Your task to perform on an android device: check google app version Image 0: 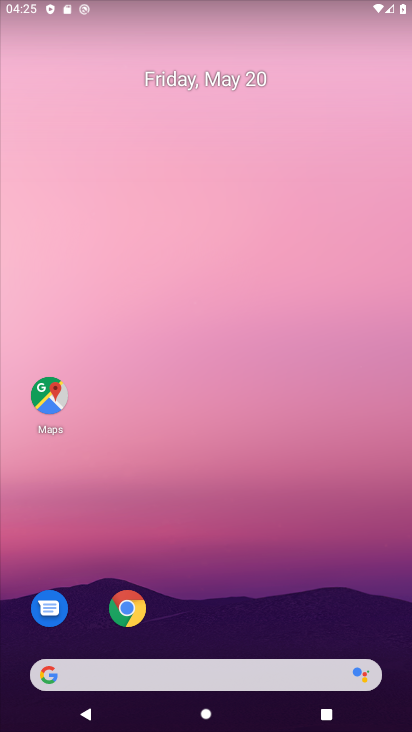
Step 0: drag from (191, 660) to (154, 1)
Your task to perform on an android device: check google app version Image 1: 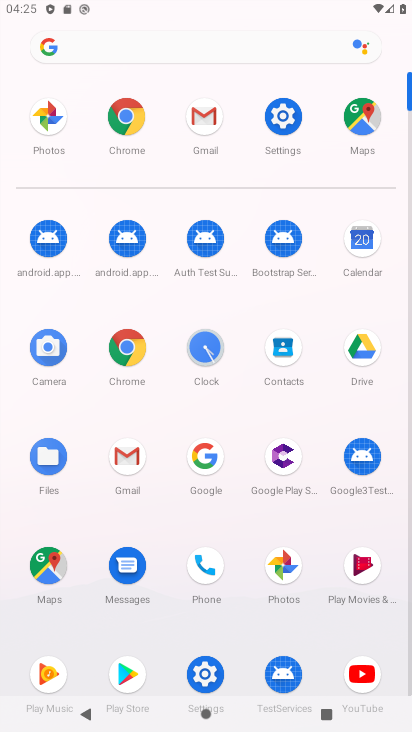
Step 1: click (200, 455)
Your task to perform on an android device: check google app version Image 2: 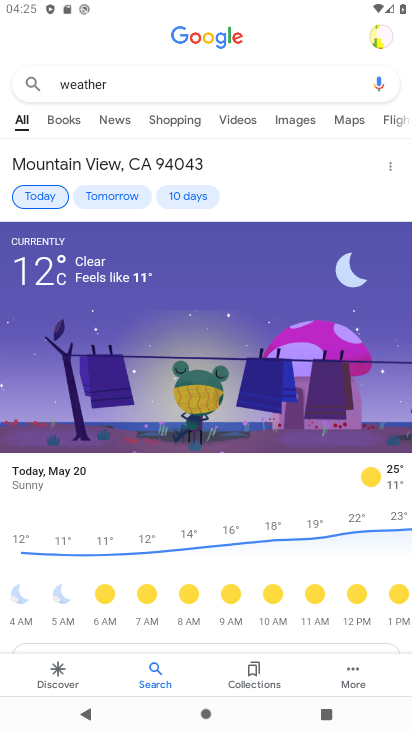
Step 2: press back button
Your task to perform on an android device: check google app version Image 3: 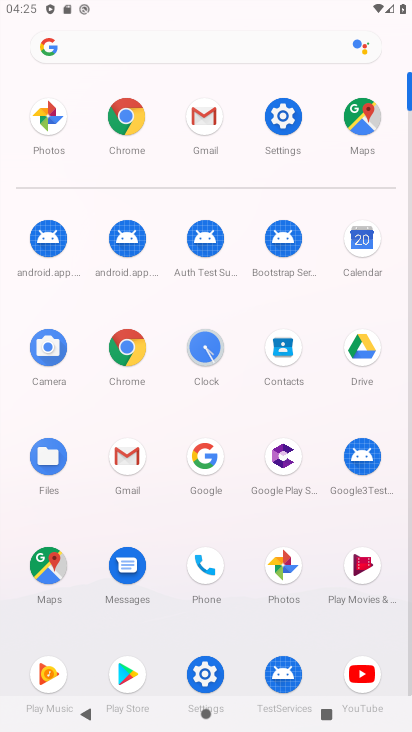
Step 3: drag from (203, 463) to (288, 332)
Your task to perform on an android device: check google app version Image 4: 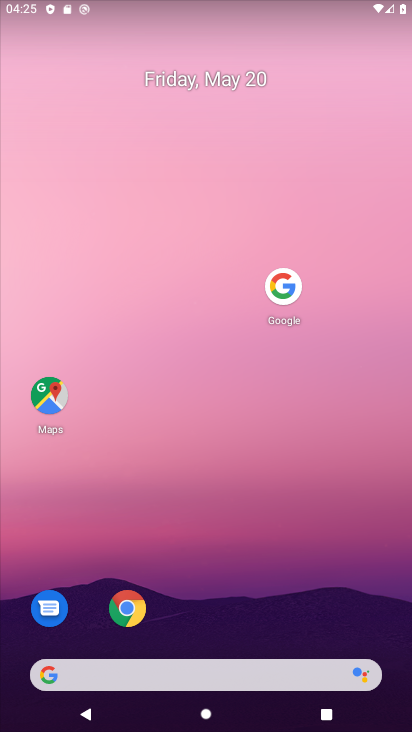
Step 4: click (268, 277)
Your task to perform on an android device: check google app version Image 5: 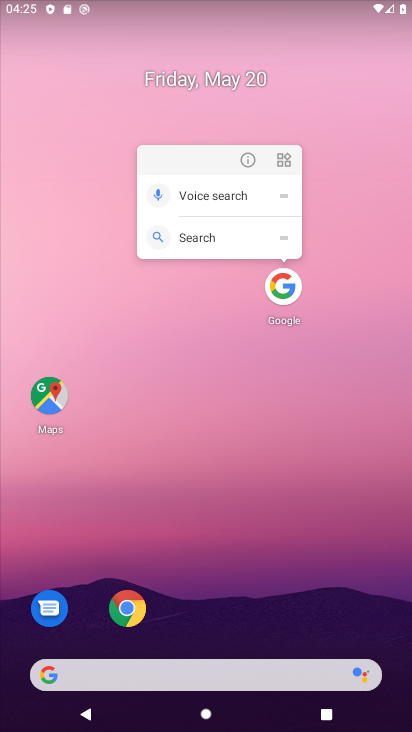
Step 5: click (249, 167)
Your task to perform on an android device: check google app version Image 6: 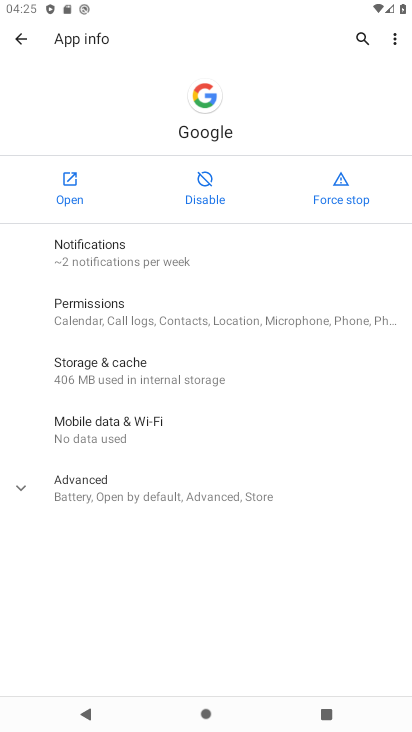
Step 6: drag from (243, 582) to (72, 195)
Your task to perform on an android device: check google app version Image 7: 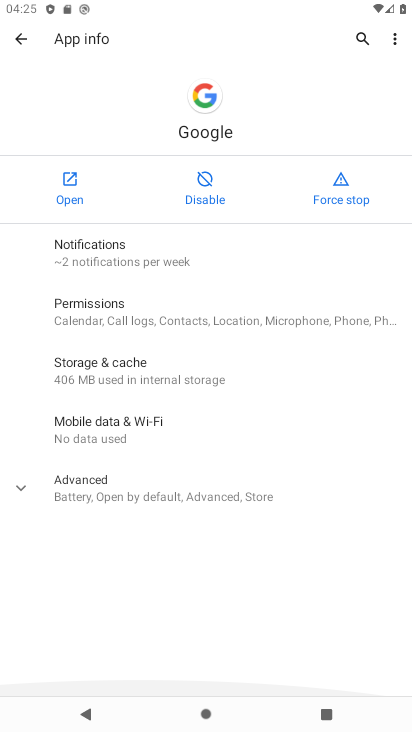
Step 7: click (92, 464)
Your task to perform on an android device: check google app version Image 8: 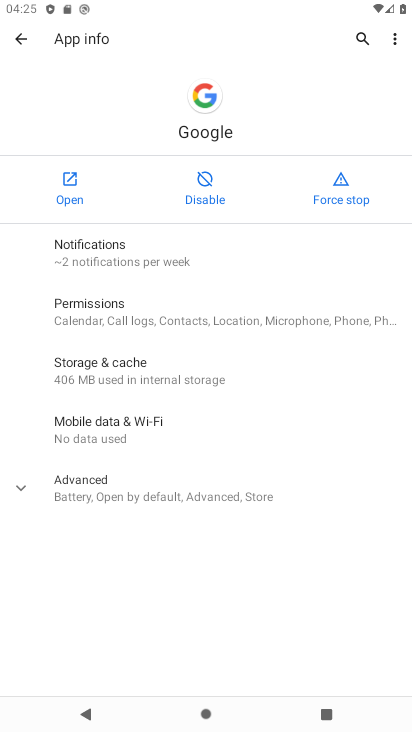
Step 8: click (37, 490)
Your task to perform on an android device: check google app version Image 9: 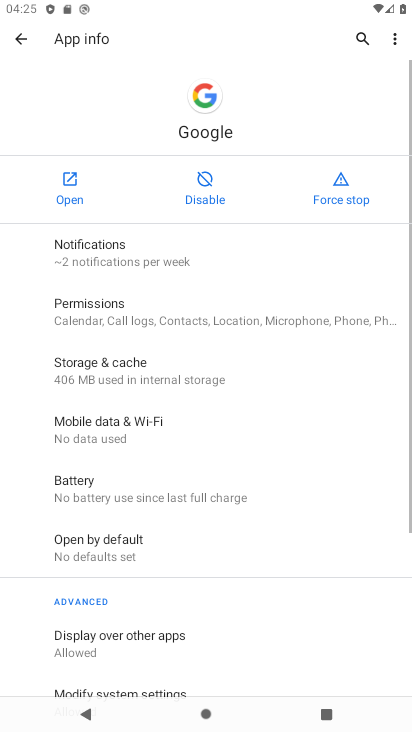
Step 9: task complete